Your task to perform on an android device: turn on sleep mode Image 0: 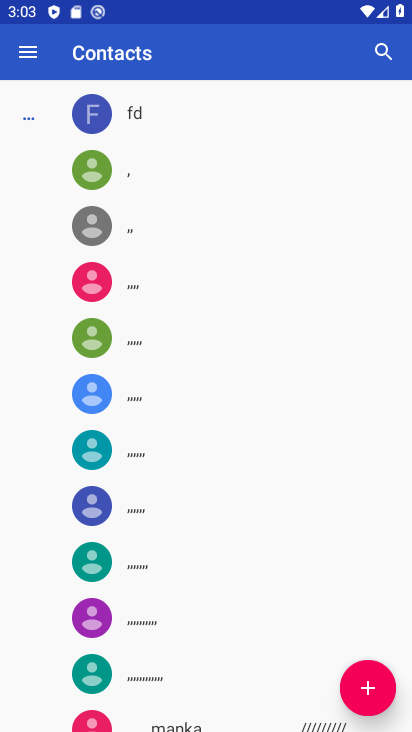
Step 0: press home button
Your task to perform on an android device: turn on sleep mode Image 1: 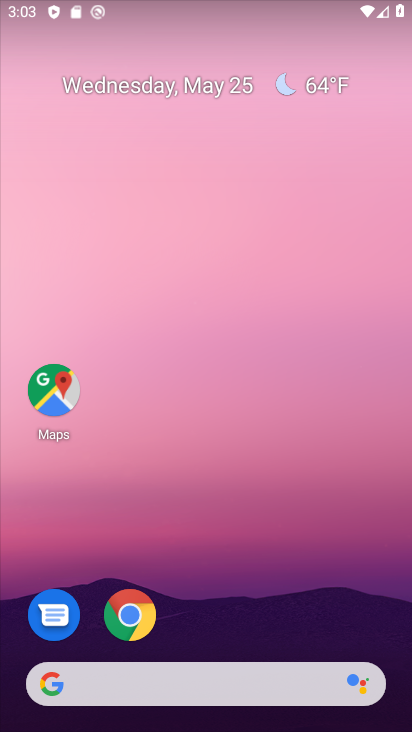
Step 1: drag from (275, 649) to (132, 657)
Your task to perform on an android device: turn on sleep mode Image 2: 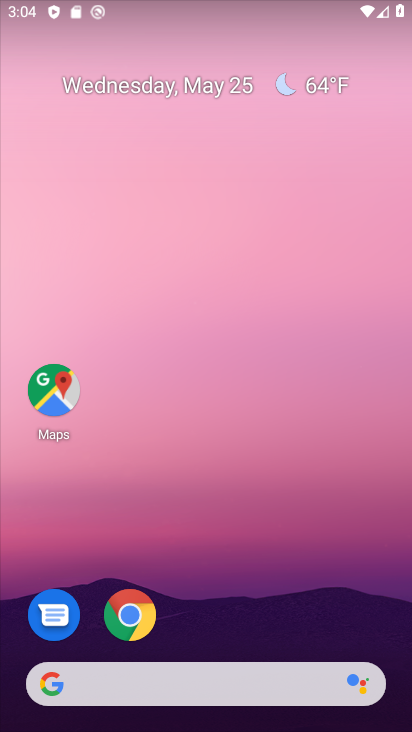
Step 2: drag from (324, 599) to (358, 2)
Your task to perform on an android device: turn on sleep mode Image 3: 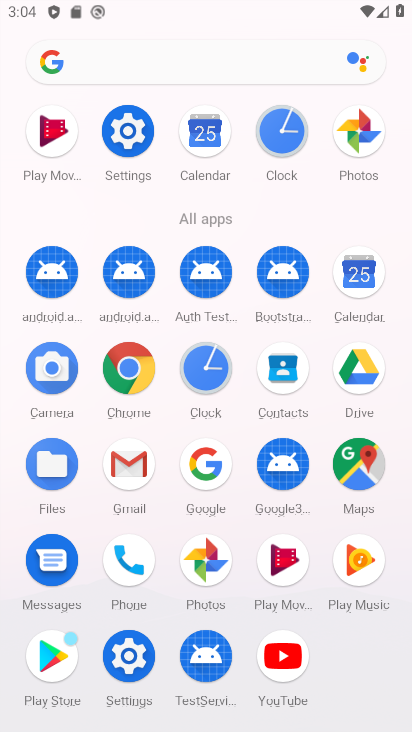
Step 3: click (128, 668)
Your task to perform on an android device: turn on sleep mode Image 4: 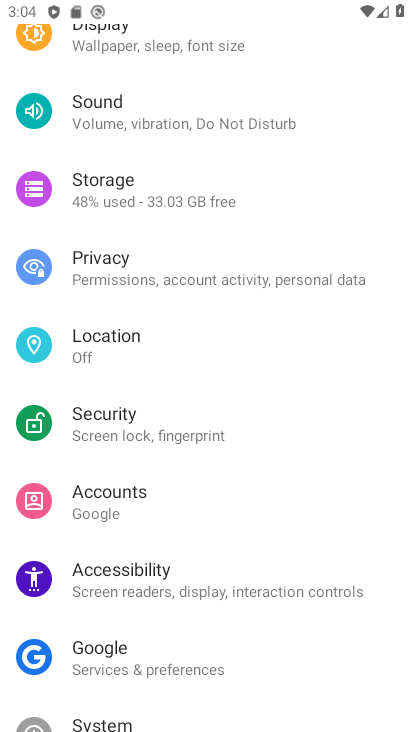
Step 4: drag from (140, 101) to (273, 633)
Your task to perform on an android device: turn on sleep mode Image 5: 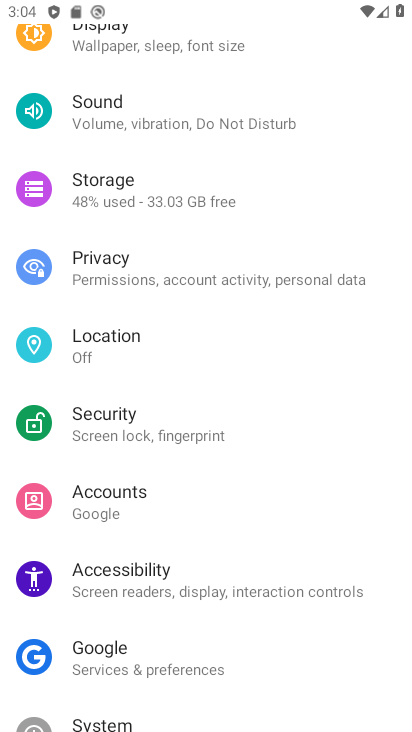
Step 5: drag from (188, 62) to (308, 444)
Your task to perform on an android device: turn on sleep mode Image 6: 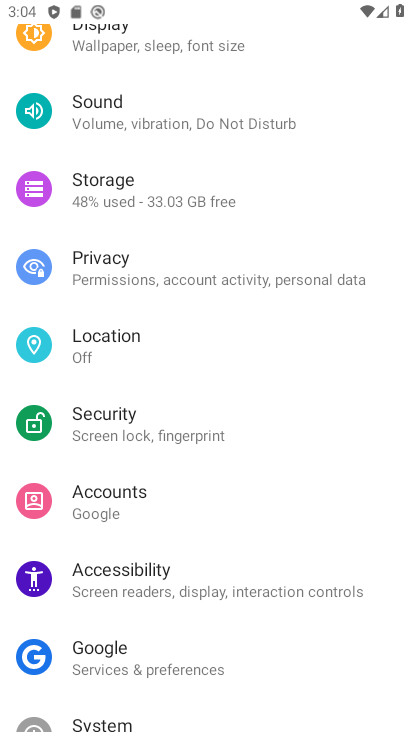
Step 6: click (106, 53)
Your task to perform on an android device: turn on sleep mode Image 7: 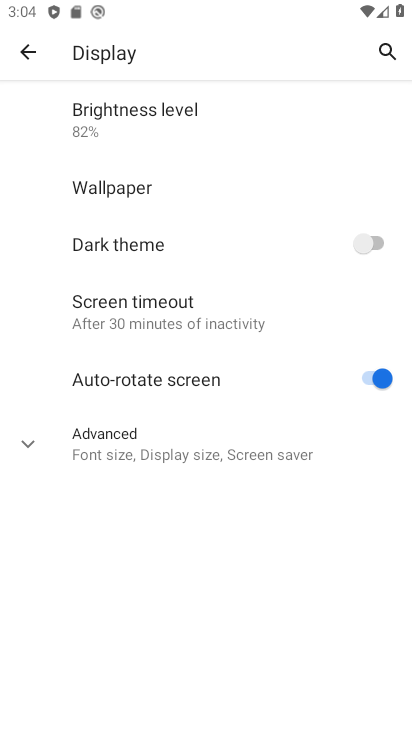
Step 7: task complete